Your task to perform on an android device: Go to Reddit.com Image 0: 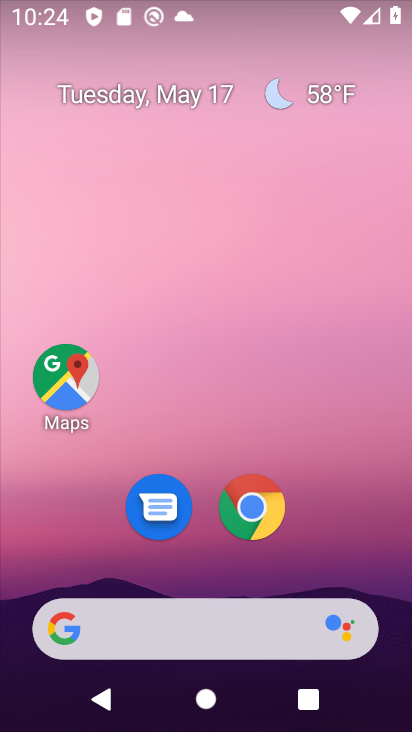
Step 0: click (261, 510)
Your task to perform on an android device: Go to Reddit.com Image 1: 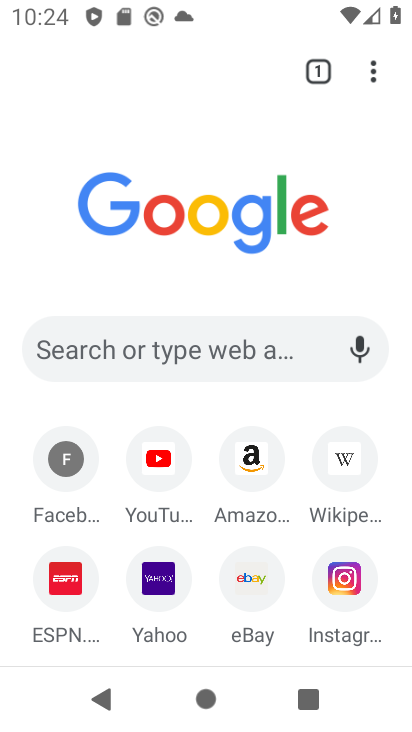
Step 1: click (188, 342)
Your task to perform on an android device: Go to Reddit.com Image 2: 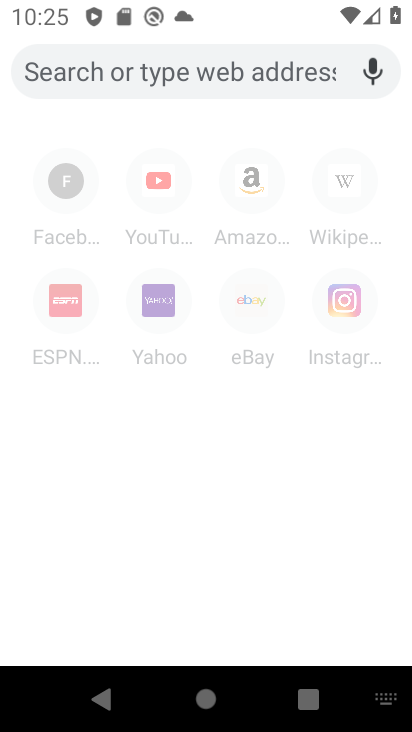
Step 2: type "reddit.com"
Your task to perform on an android device: Go to Reddit.com Image 3: 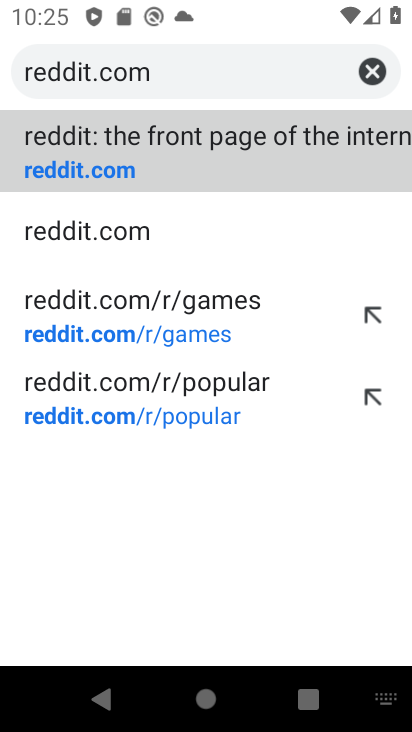
Step 3: click (96, 226)
Your task to perform on an android device: Go to Reddit.com Image 4: 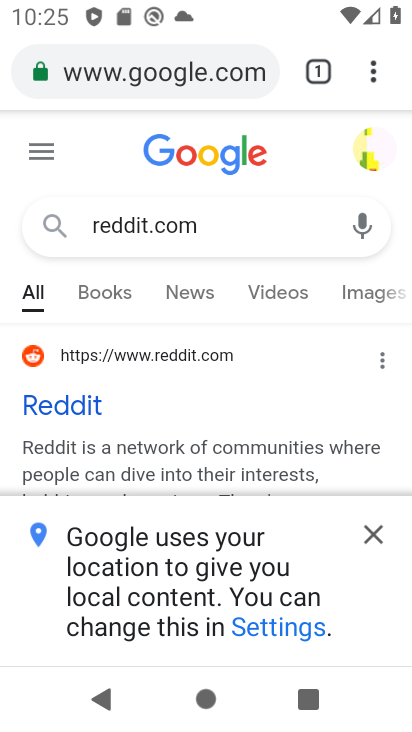
Step 4: task complete